Your task to perform on an android device: Check the weather Image 0: 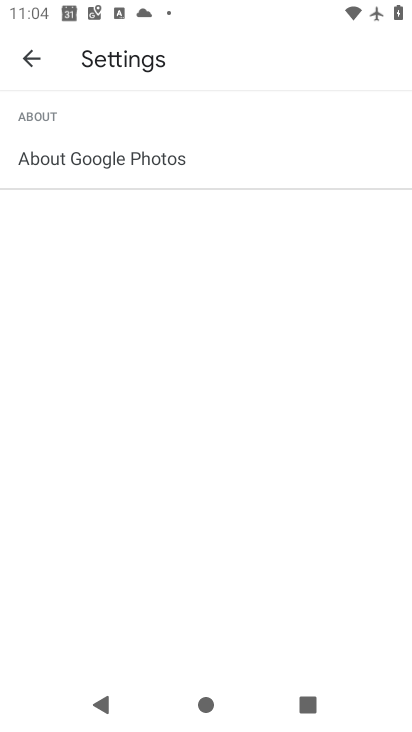
Step 0: press home button
Your task to perform on an android device: Check the weather Image 1: 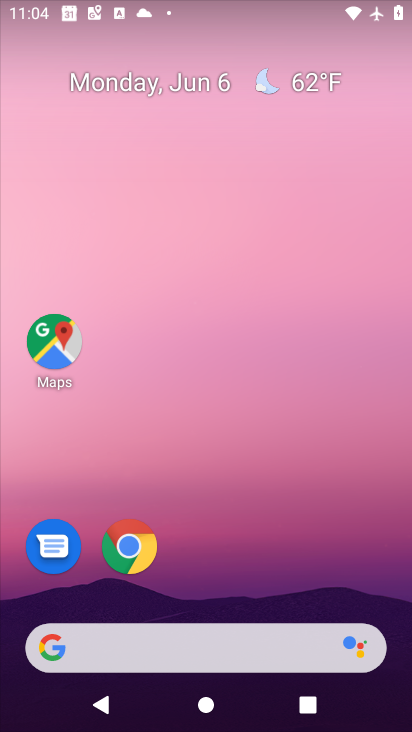
Step 1: click (307, 81)
Your task to perform on an android device: Check the weather Image 2: 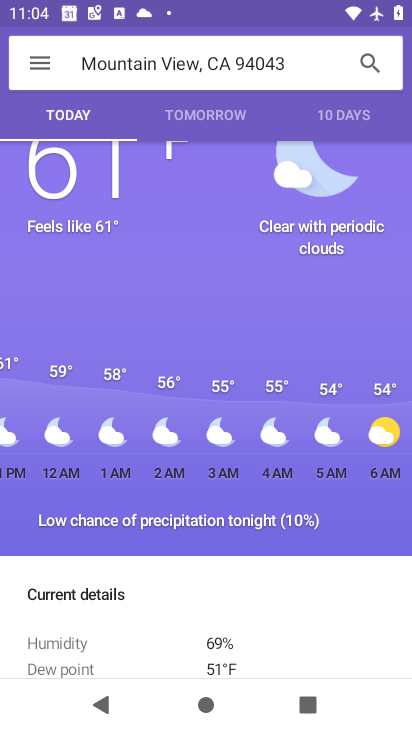
Step 2: click (351, 442)
Your task to perform on an android device: Check the weather Image 3: 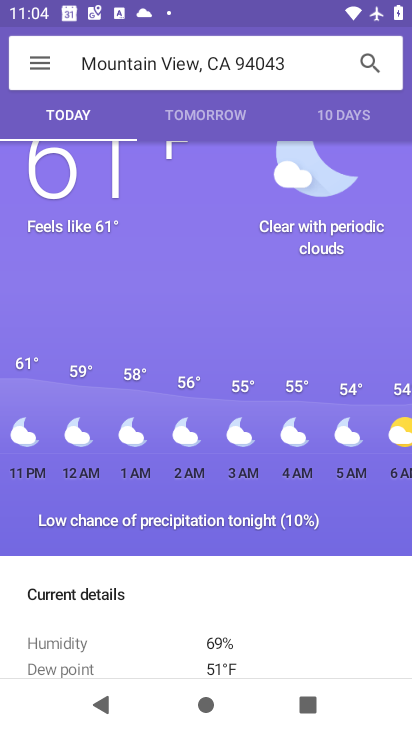
Step 3: task complete